Your task to perform on an android device: turn off notifications in google photos Image 0: 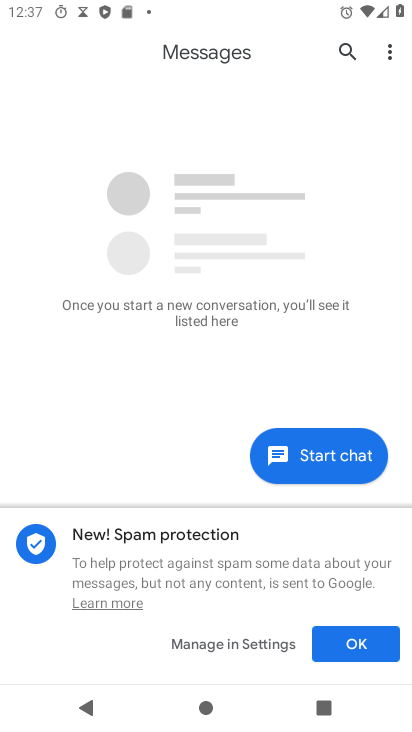
Step 0: press home button
Your task to perform on an android device: turn off notifications in google photos Image 1: 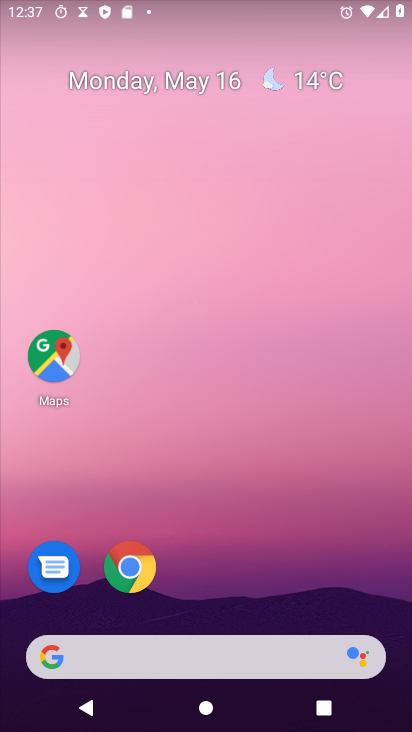
Step 1: drag from (247, 610) to (252, 26)
Your task to perform on an android device: turn off notifications in google photos Image 2: 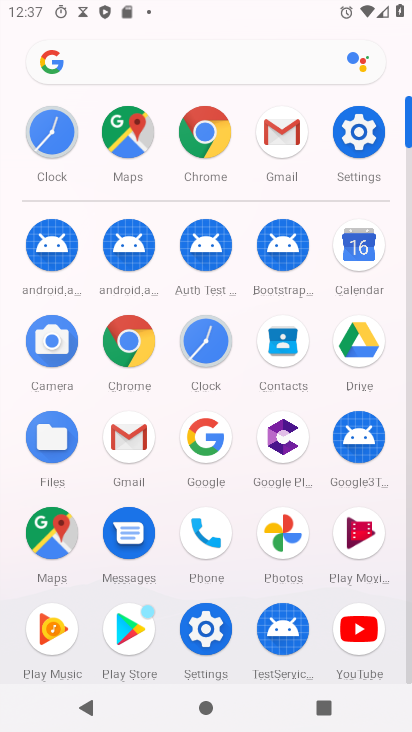
Step 2: click (276, 538)
Your task to perform on an android device: turn off notifications in google photos Image 3: 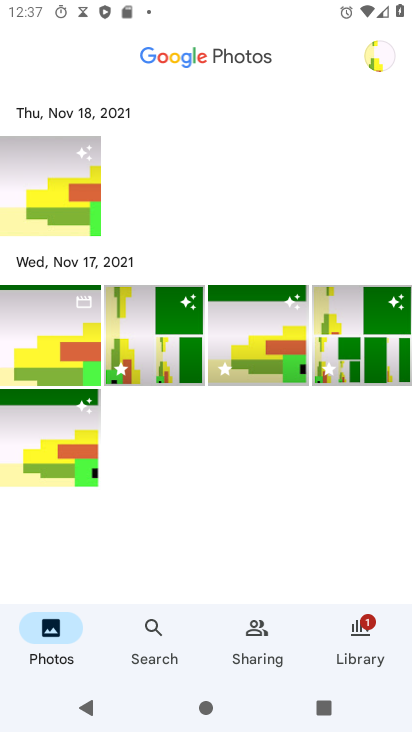
Step 3: click (372, 47)
Your task to perform on an android device: turn off notifications in google photos Image 4: 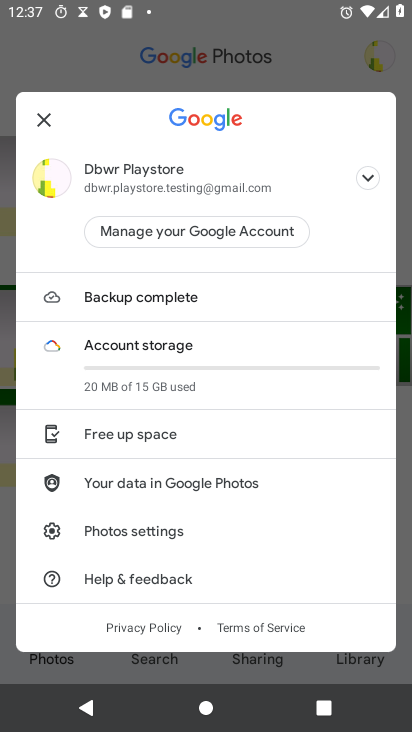
Step 4: click (135, 534)
Your task to perform on an android device: turn off notifications in google photos Image 5: 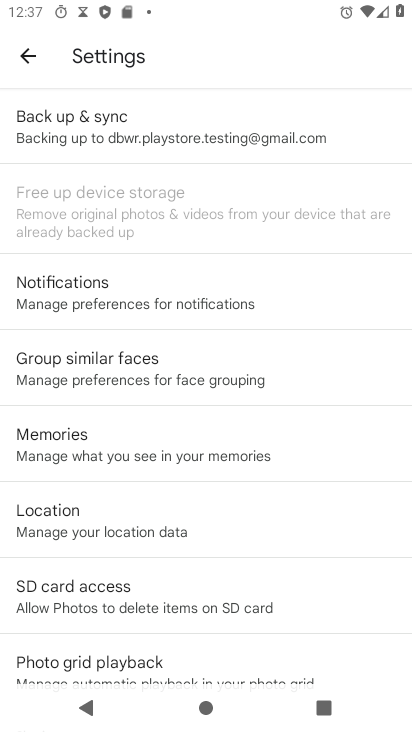
Step 5: click (74, 312)
Your task to perform on an android device: turn off notifications in google photos Image 6: 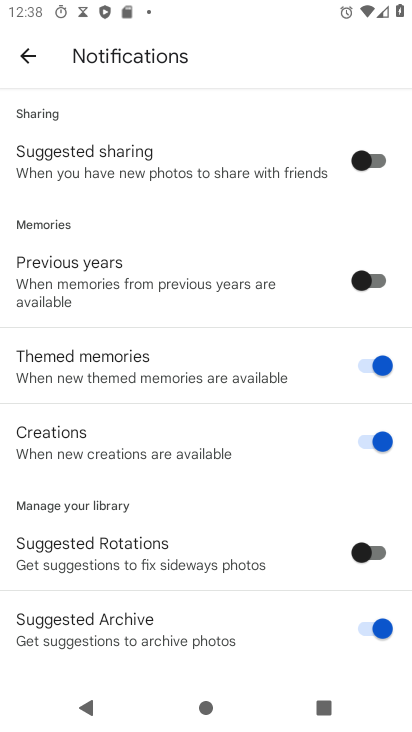
Step 6: drag from (253, 535) to (263, 122)
Your task to perform on an android device: turn off notifications in google photos Image 7: 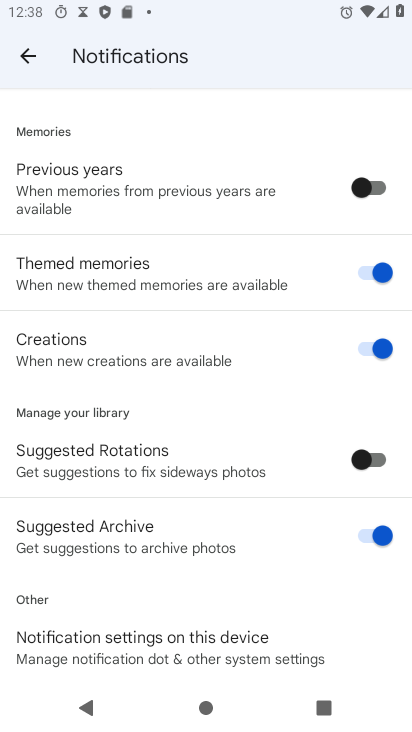
Step 7: click (274, 646)
Your task to perform on an android device: turn off notifications in google photos Image 8: 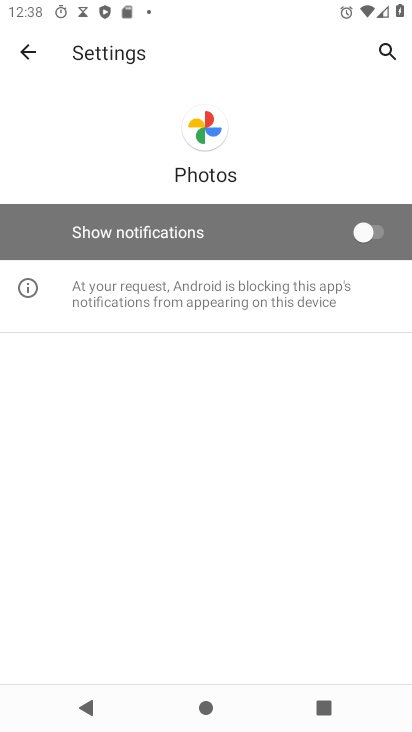
Step 8: task complete